Your task to perform on an android device: Go to Maps Image 0: 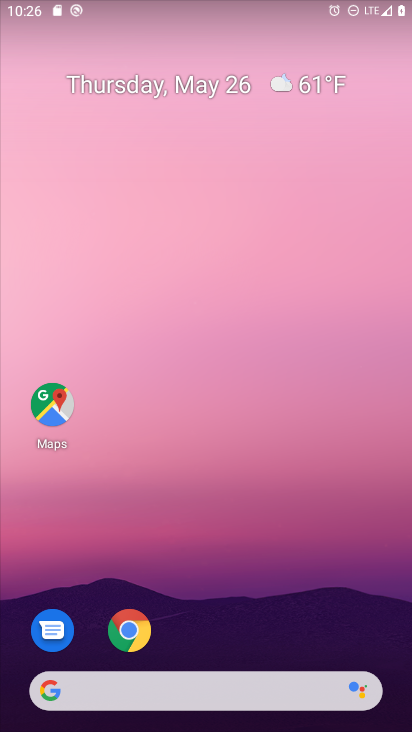
Step 0: click (56, 392)
Your task to perform on an android device: Go to Maps Image 1: 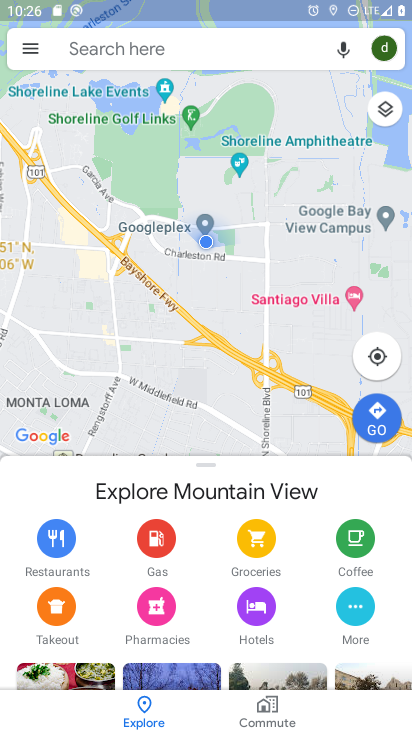
Step 1: task complete